Your task to perform on an android device: Go to Wikipedia Image 0: 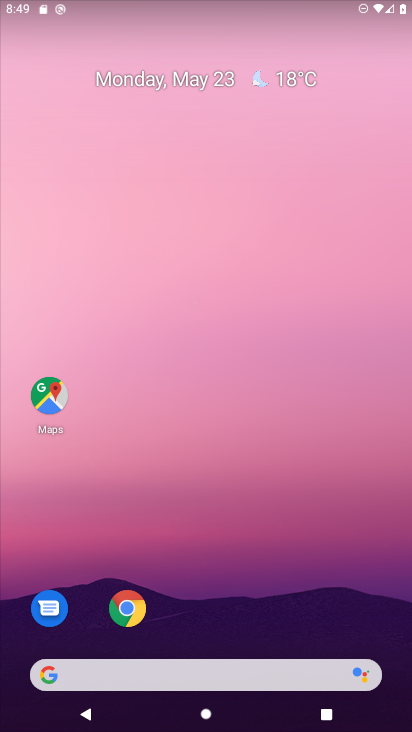
Step 0: click (127, 611)
Your task to perform on an android device: Go to Wikipedia Image 1: 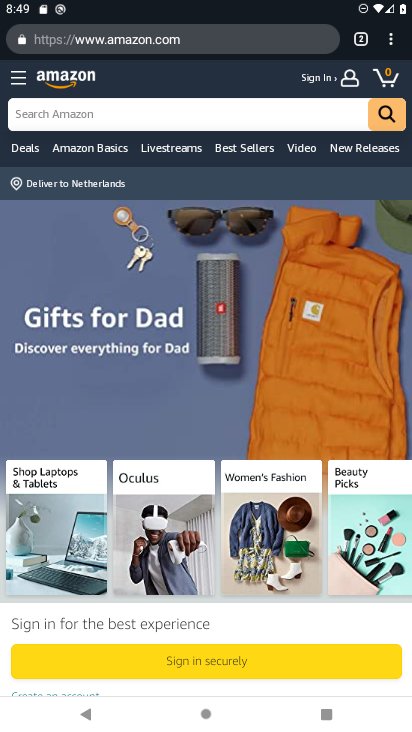
Step 1: click (392, 46)
Your task to perform on an android device: Go to Wikipedia Image 2: 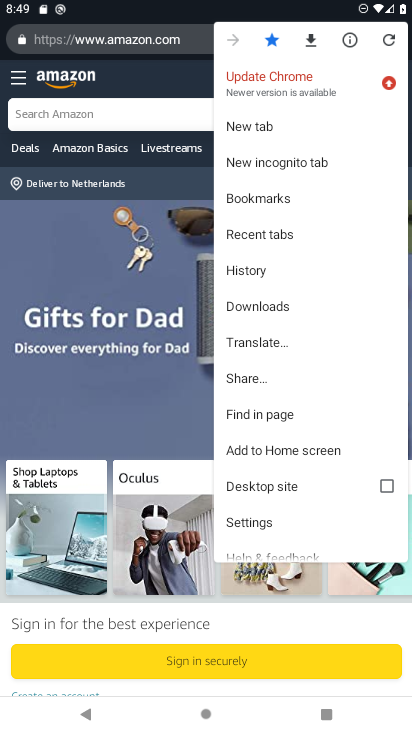
Step 2: click (247, 126)
Your task to perform on an android device: Go to Wikipedia Image 3: 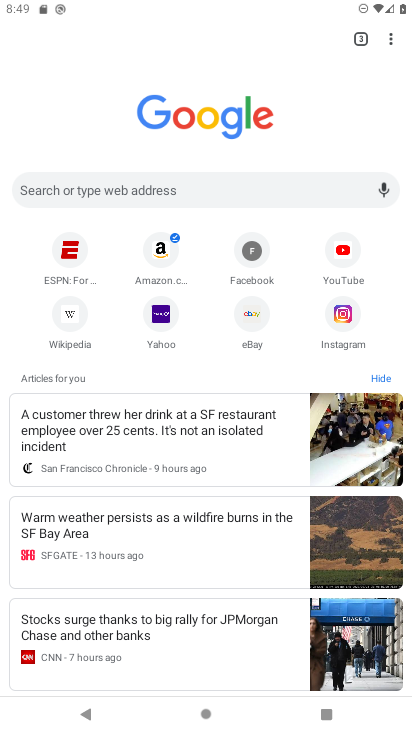
Step 3: click (70, 315)
Your task to perform on an android device: Go to Wikipedia Image 4: 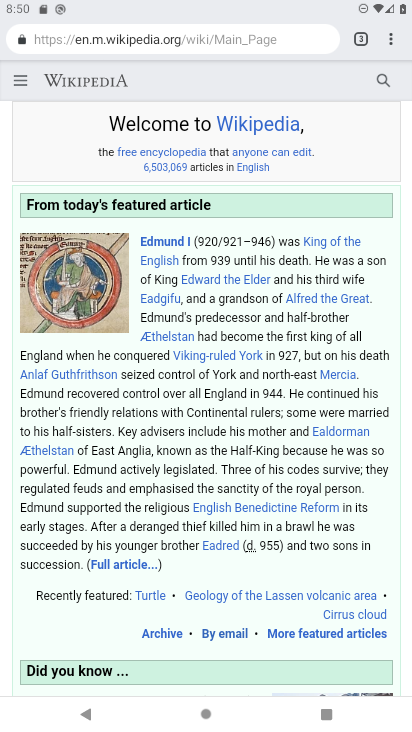
Step 4: task complete